Your task to perform on an android device: Is it going to rain this weekend? Image 0: 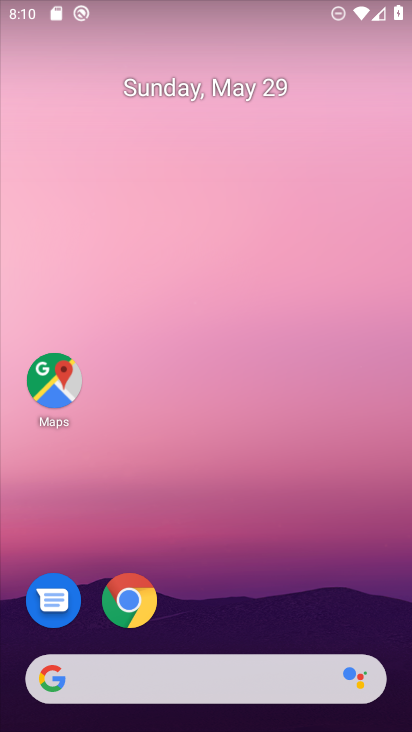
Step 0: click (236, 678)
Your task to perform on an android device: Is it going to rain this weekend? Image 1: 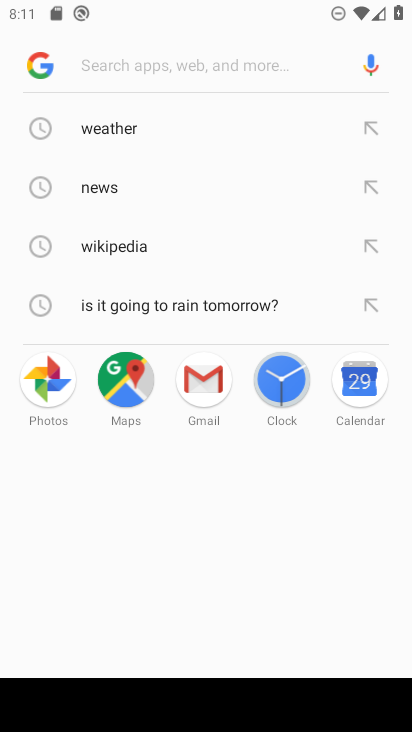
Step 1: type "is it going to rain this weekend"
Your task to perform on an android device: Is it going to rain this weekend? Image 2: 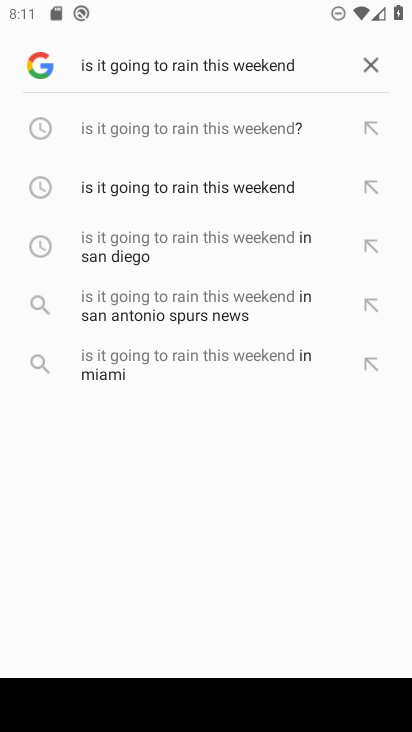
Step 2: click (301, 142)
Your task to perform on an android device: Is it going to rain this weekend? Image 3: 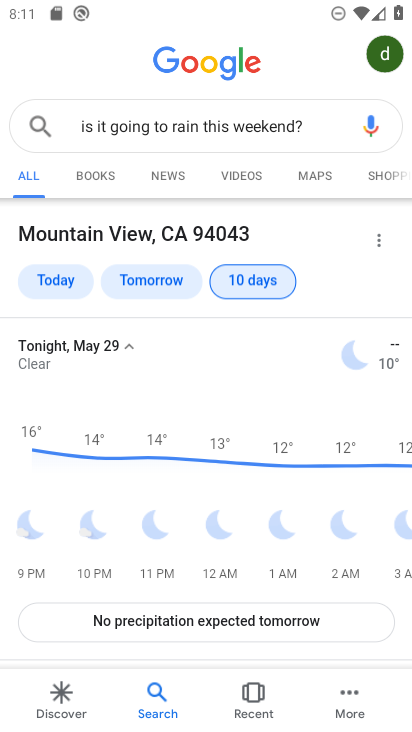
Step 3: task complete